Your task to perform on an android device: toggle javascript in the chrome app Image 0: 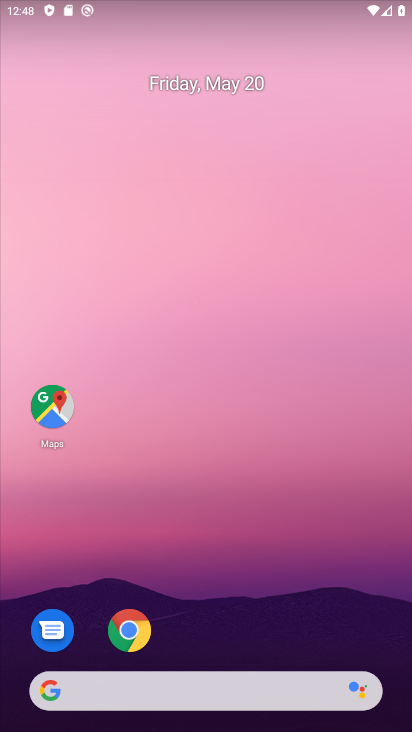
Step 0: drag from (238, 712) to (171, 156)
Your task to perform on an android device: toggle javascript in the chrome app Image 1: 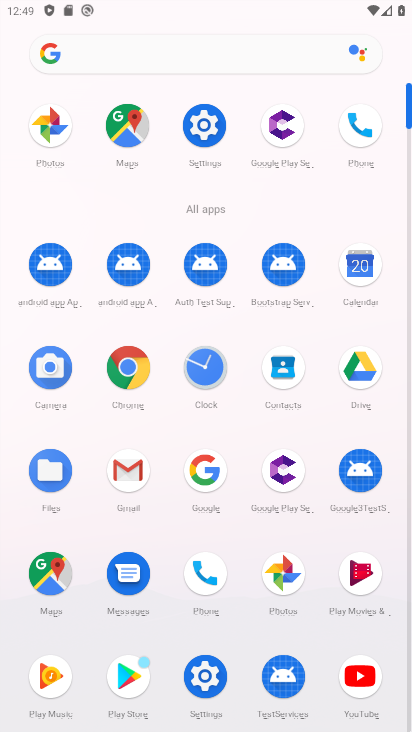
Step 1: click (136, 364)
Your task to perform on an android device: toggle javascript in the chrome app Image 2: 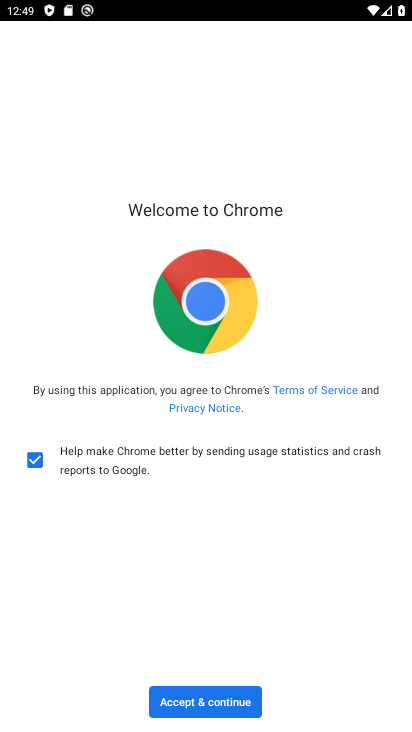
Step 2: click (187, 699)
Your task to perform on an android device: toggle javascript in the chrome app Image 3: 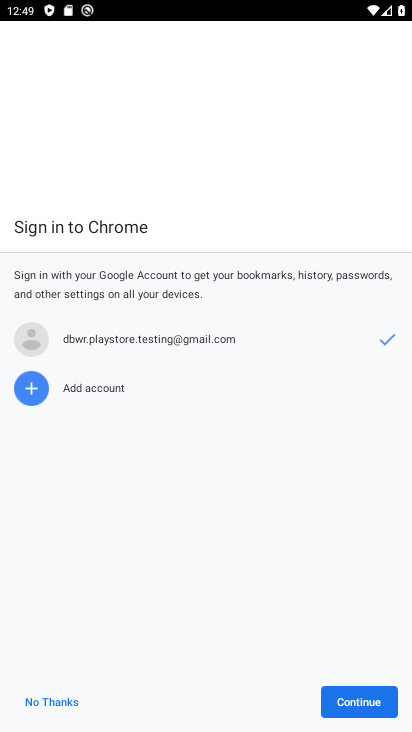
Step 3: click (351, 697)
Your task to perform on an android device: toggle javascript in the chrome app Image 4: 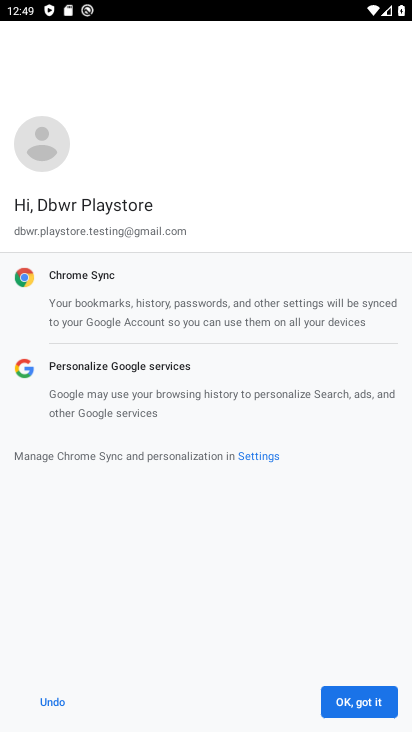
Step 4: click (357, 690)
Your task to perform on an android device: toggle javascript in the chrome app Image 5: 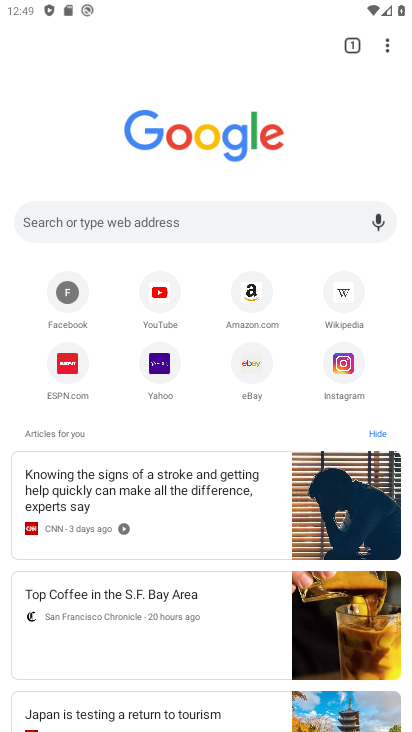
Step 5: click (389, 51)
Your task to perform on an android device: toggle javascript in the chrome app Image 6: 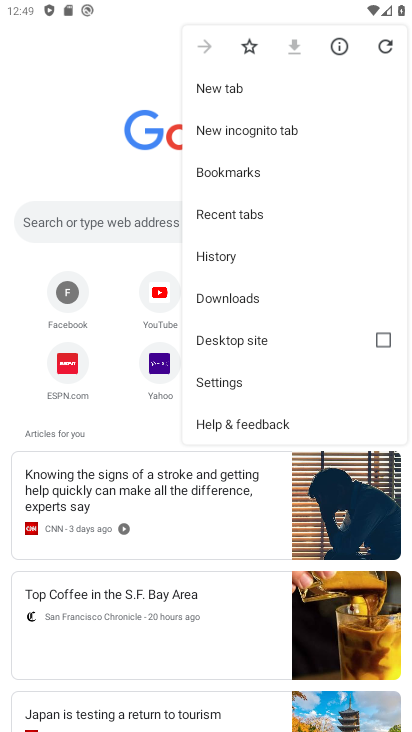
Step 6: click (224, 396)
Your task to perform on an android device: toggle javascript in the chrome app Image 7: 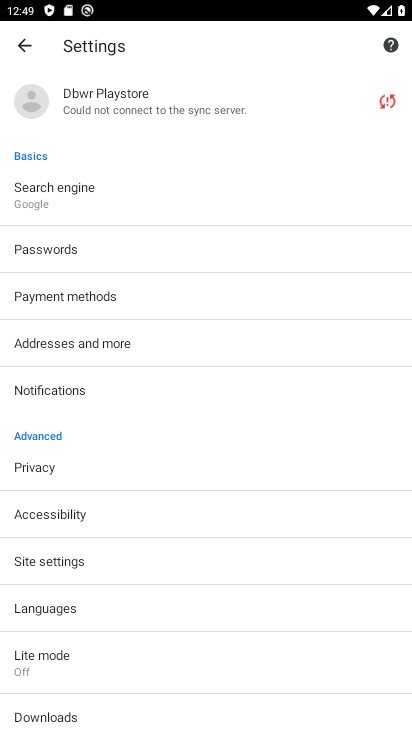
Step 7: click (73, 567)
Your task to perform on an android device: toggle javascript in the chrome app Image 8: 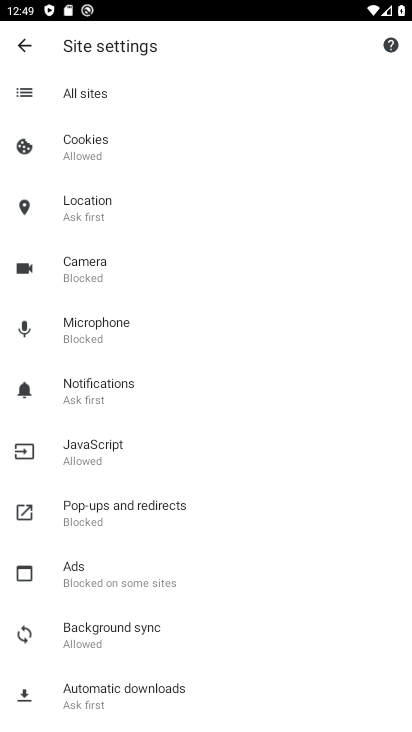
Step 8: click (142, 442)
Your task to perform on an android device: toggle javascript in the chrome app Image 9: 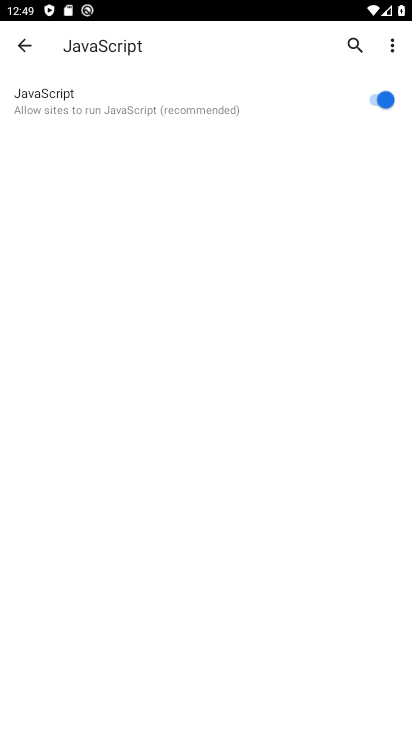
Step 9: task complete